Your task to perform on an android device: turn off translation in the chrome app Image 0: 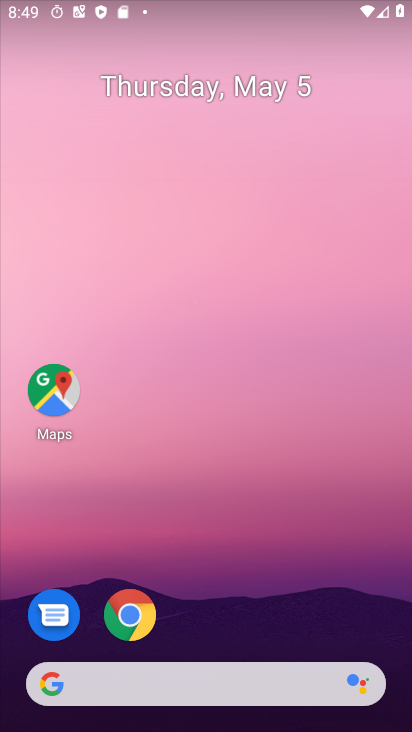
Step 0: click (138, 620)
Your task to perform on an android device: turn off translation in the chrome app Image 1: 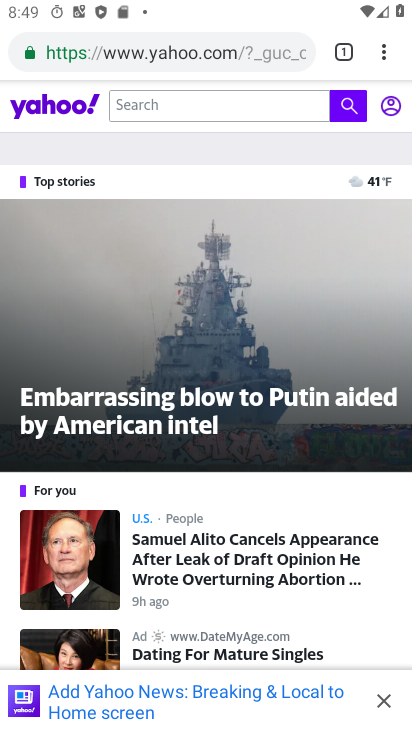
Step 1: click (379, 52)
Your task to perform on an android device: turn off translation in the chrome app Image 2: 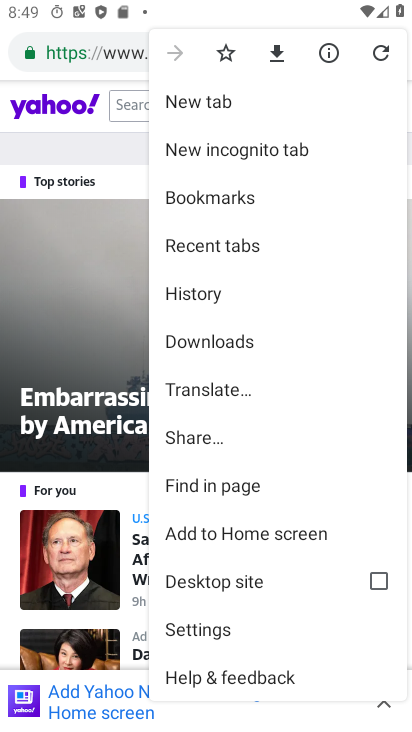
Step 2: click (218, 632)
Your task to perform on an android device: turn off translation in the chrome app Image 3: 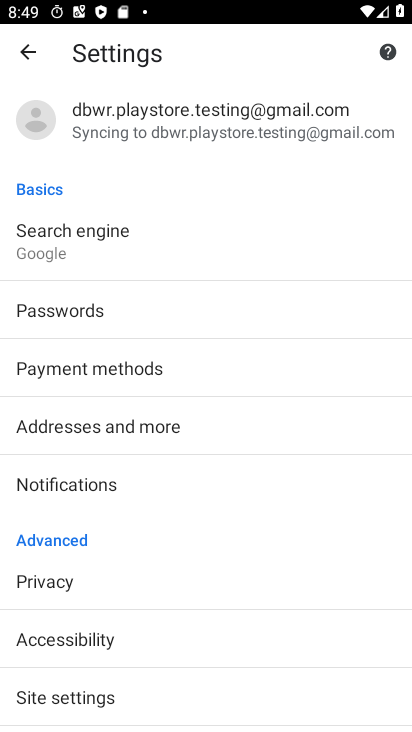
Step 3: drag from (94, 617) to (92, 327)
Your task to perform on an android device: turn off translation in the chrome app Image 4: 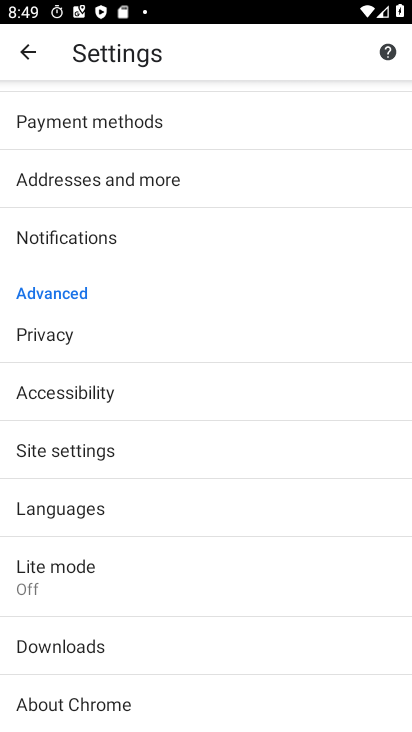
Step 4: click (83, 516)
Your task to perform on an android device: turn off translation in the chrome app Image 5: 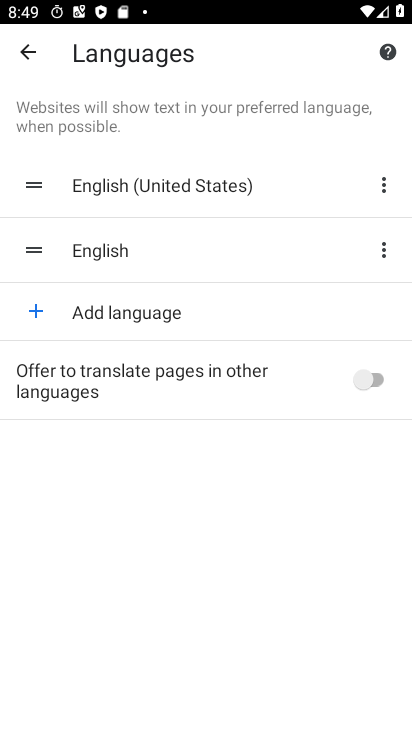
Step 5: task complete